Your task to perform on an android device: read, delete, or share a saved page in the chrome app Image 0: 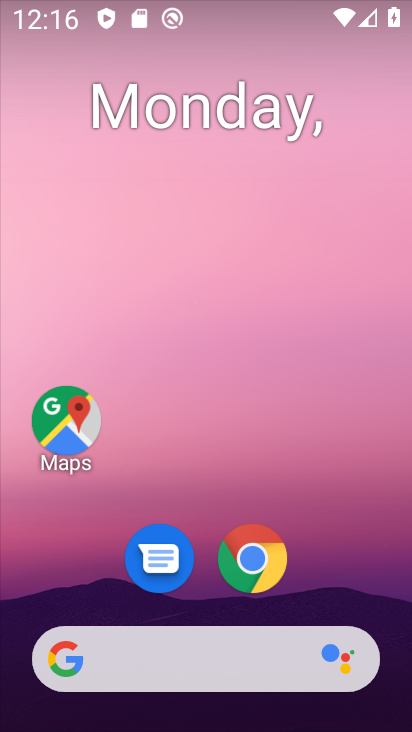
Step 0: drag from (304, 480) to (228, 3)
Your task to perform on an android device: read, delete, or share a saved page in the chrome app Image 1: 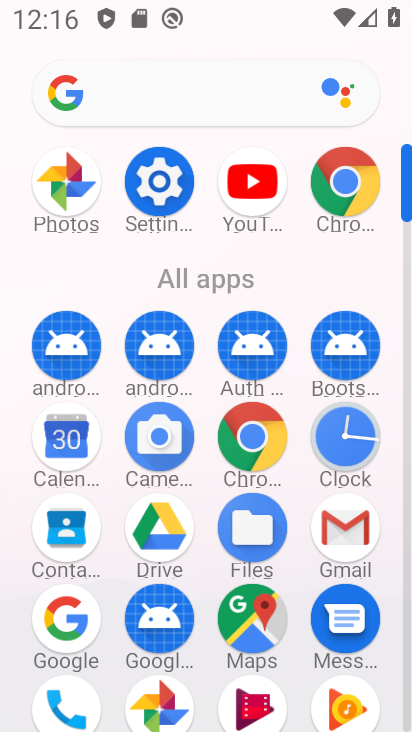
Step 1: drag from (12, 599) to (33, 259)
Your task to perform on an android device: read, delete, or share a saved page in the chrome app Image 2: 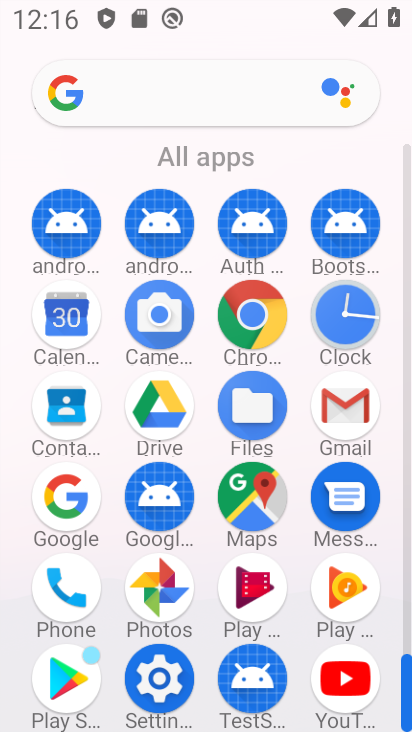
Step 2: click (254, 310)
Your task to perform on an android device: read, delete, or share a saved page in the chrome app Image 3: 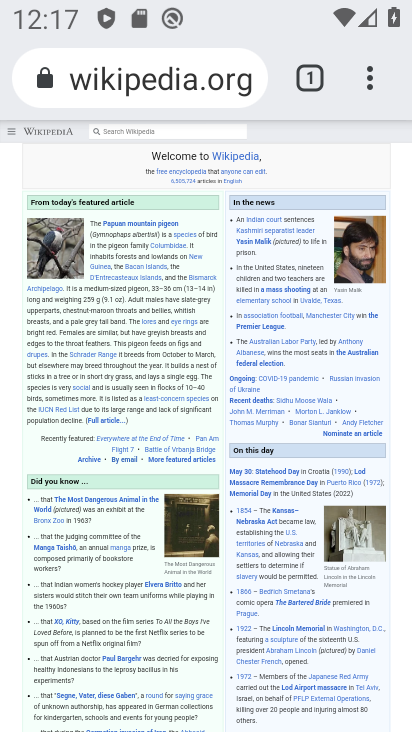
Step 3: task complete